Your task to perform on an android device: Go to Amazon Image 0: 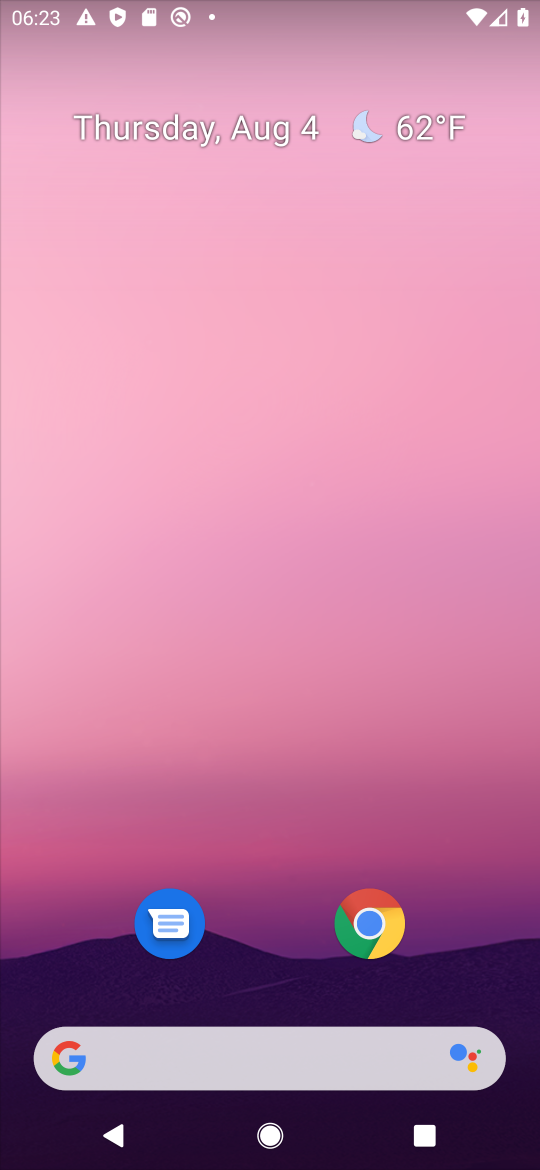
Step 0: click (380, 921)
Your task to perform on an android device: Go to Amazon Image 1: 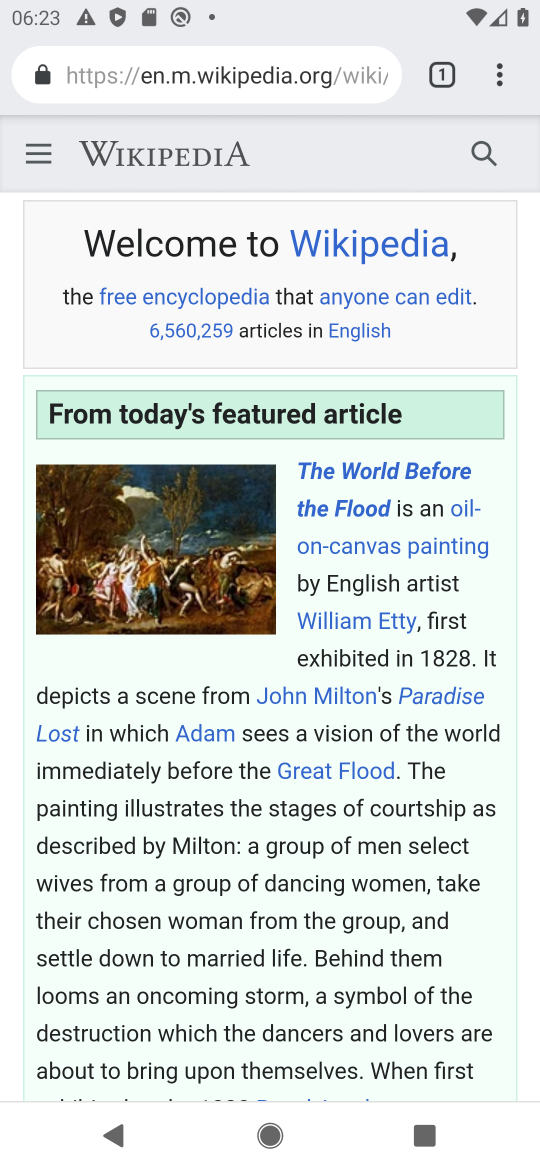
Step 1: click (446, 66)
Your task to perform on an android device: Go to Amazon Image 2: 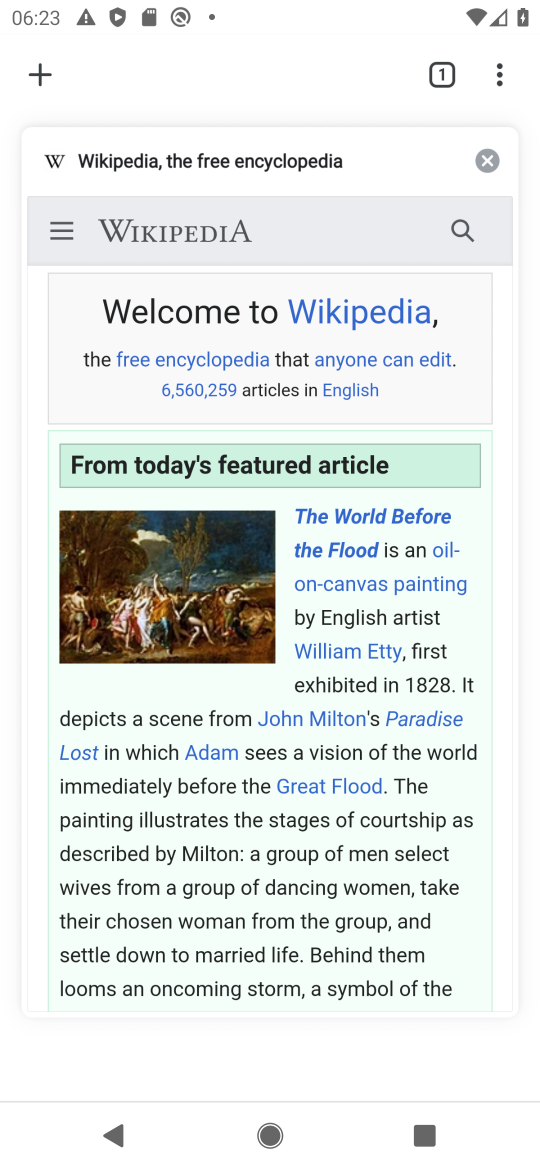
Step 2: click (495, 158)
Your task to perform on an android device: Go to Amazon Image 3: 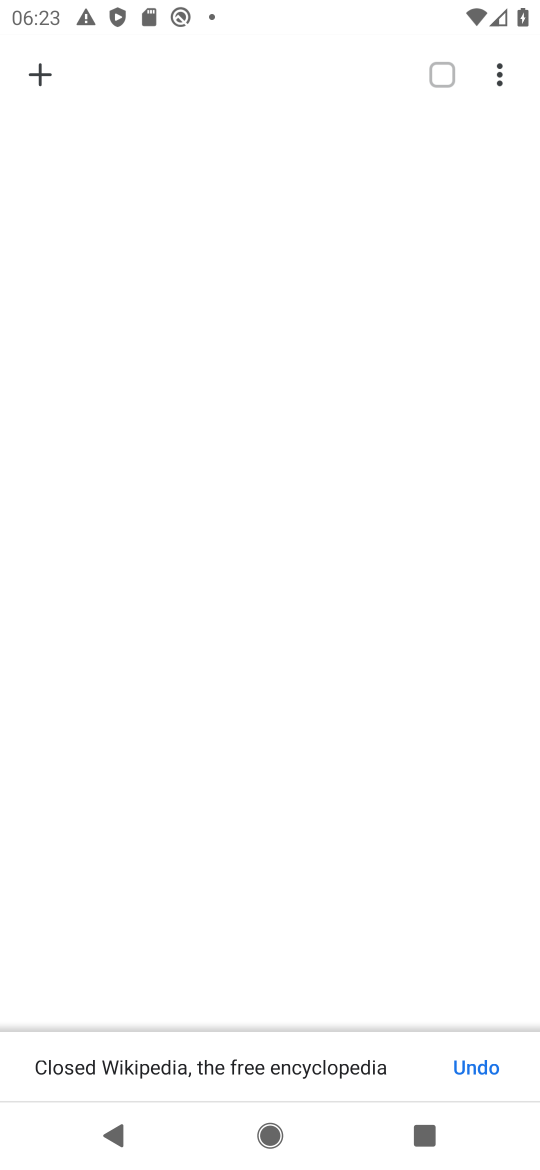
Step 3: click (57, 70)
Your task to perform on an android device: Go to Amazon Image 4: 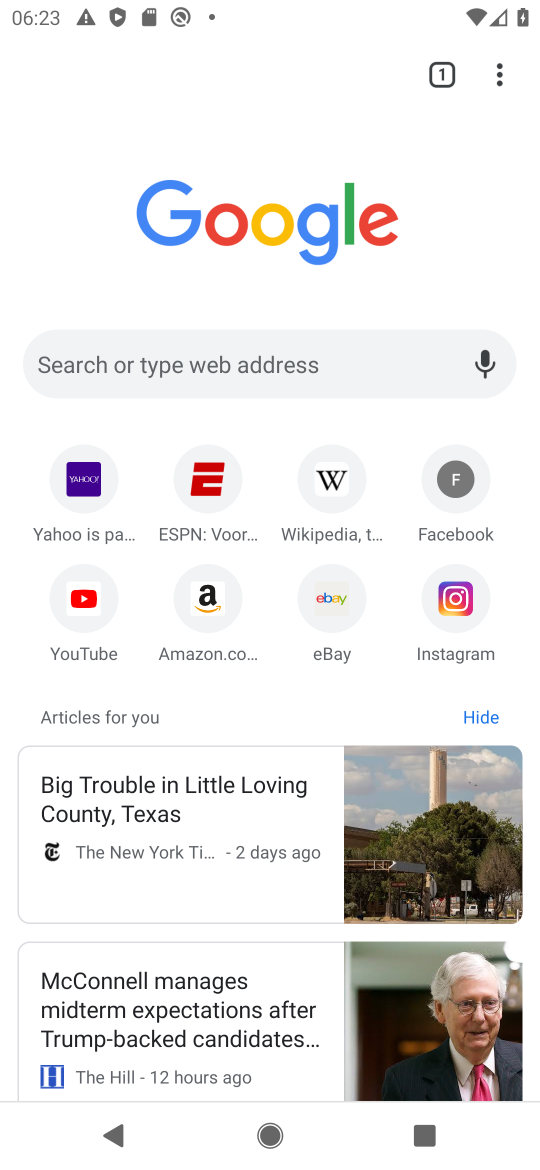
Step 4: click (210, 604)
Your task to perform on an android device: Go to Amazon Image 5: 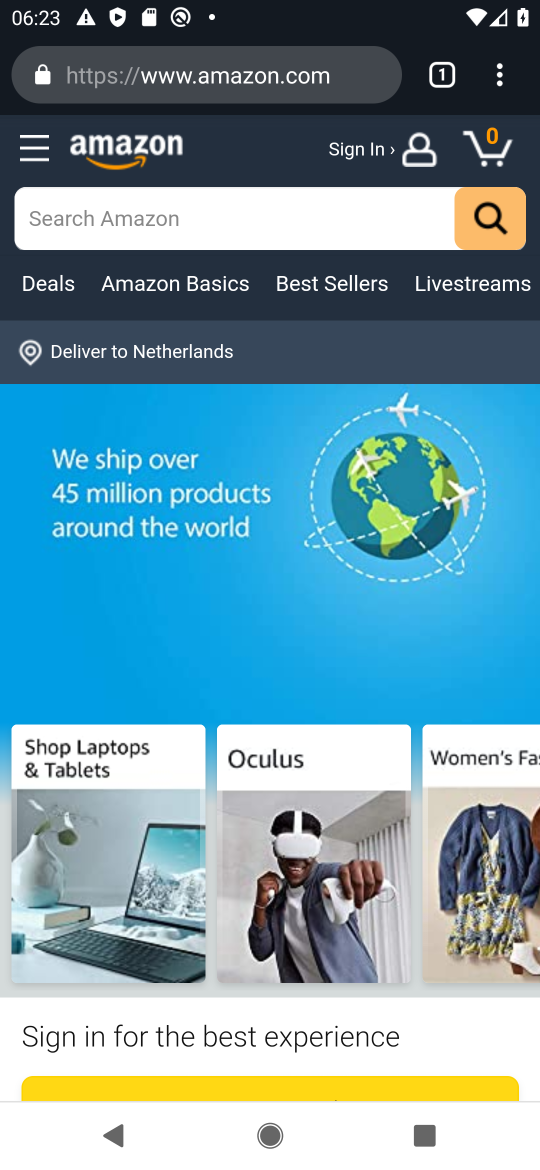
Step 5: task complete